Your task to perform on an android device: clear all cookies in the chrome app Image 0: 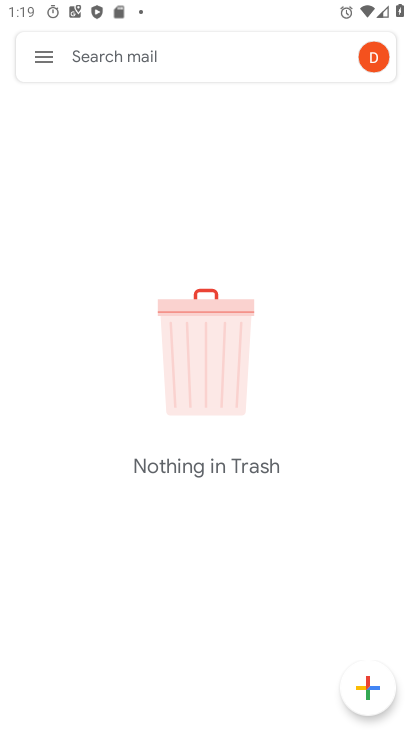
Step 0: press home button
Your task to perform on an android device: clear all cookies in the chrome app Image 1: 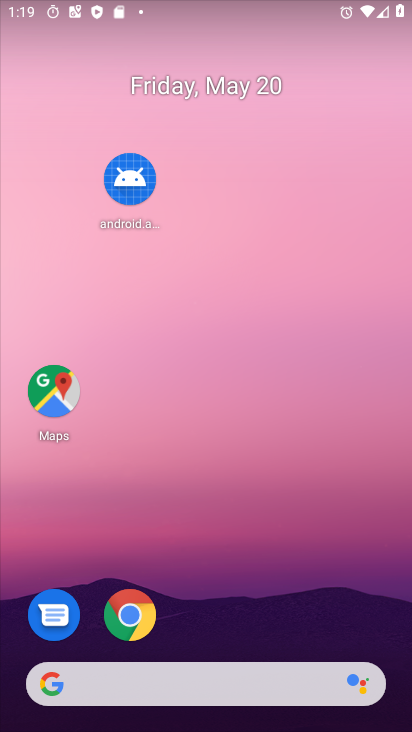
Step 1: click (126, 599)
Your task to perform on an android device: clear all cookies in the chrome app Image 2: 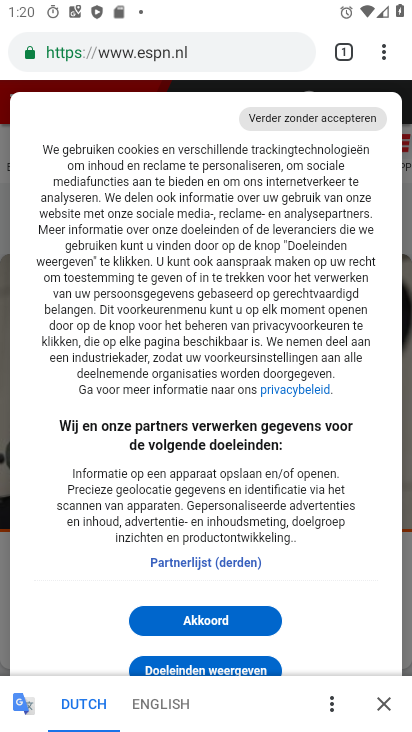
Step 2: click (389, 47)
Your task to perform on an android device: clear all cookies in the chrome app Image 3: 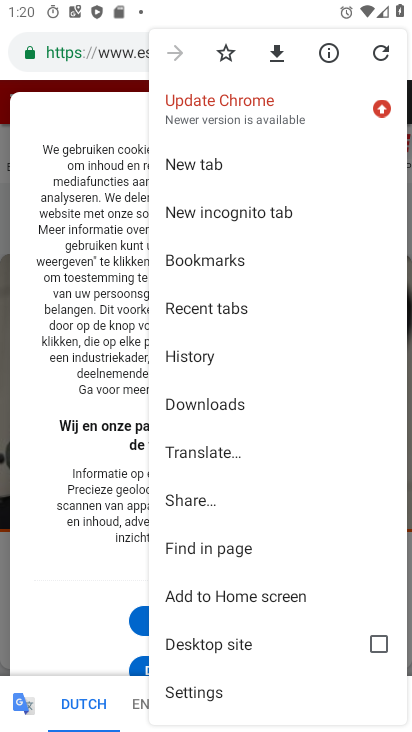
Step 3: click (227, 688)
Your task to perform on an android device: clear all cookies in the chrome app Image 4: 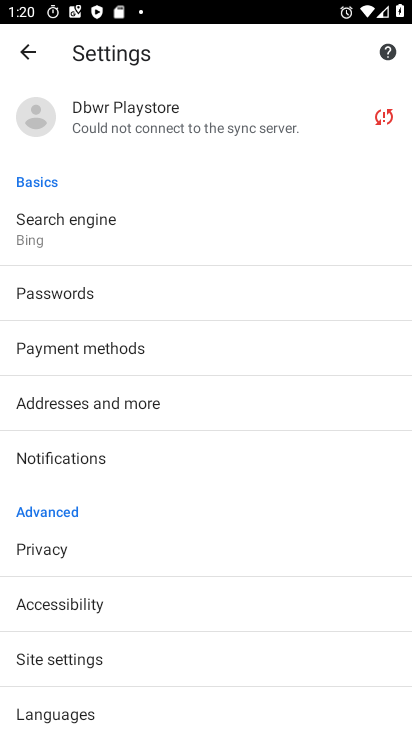
Step 4: click (56, 659)
Your task to perform on an android device: clear all cookies in the chrome app Image 5: 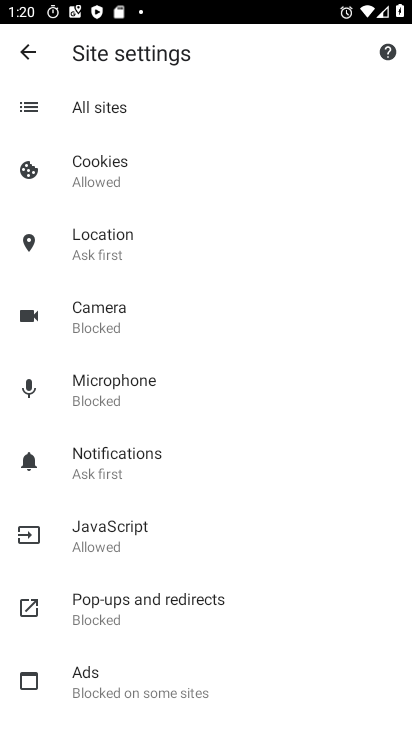
Step 5: click (37, 58)
Your task to perform on an android device: clear all cookies in the chrome app Image 6: 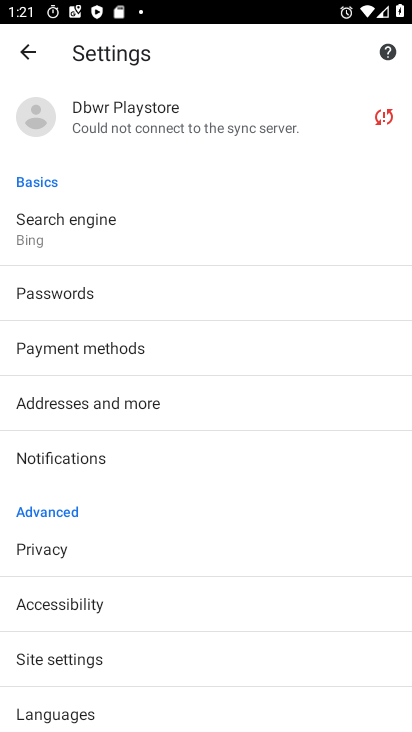
Step 6: click (66, 545)
Your task to perform on an android device: clear all cookies in the chrome app Image 7: 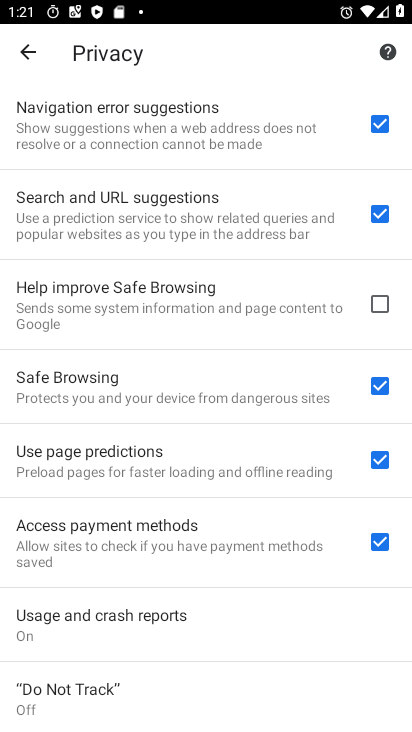
Step 7: drag from (145, 604) to (115, 194)
Your task to perform on an android device: clear all cookies in the chrome app Image 8: 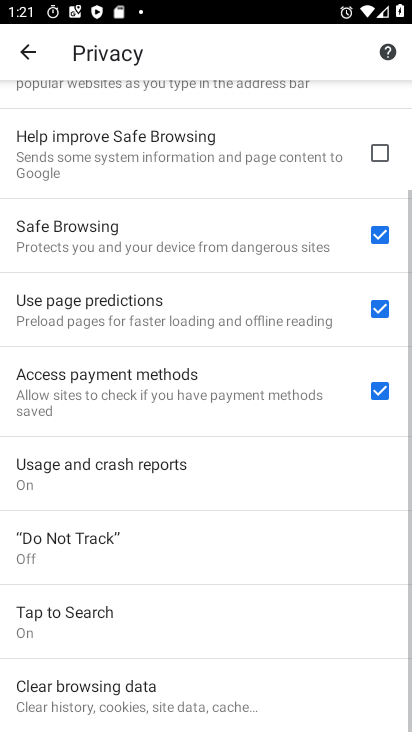
Step 8: click (212, 678)
Your task to perform on an android device: clear all cookies in the chrome app Image 9: 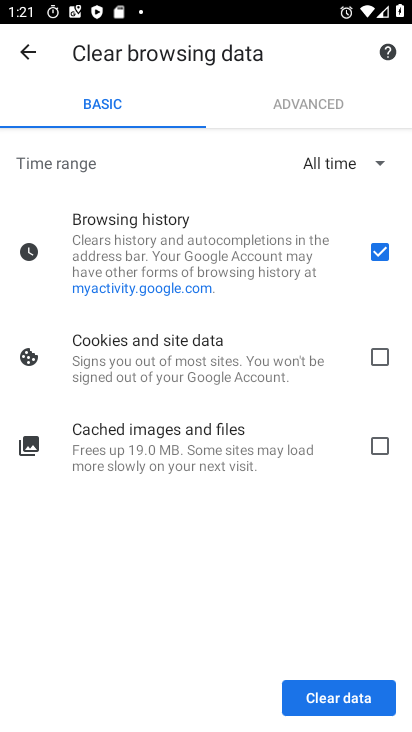
Step 9: click (375, 361)
Your task to perform on an android device: clear all cookies in the chrome app Image 10: 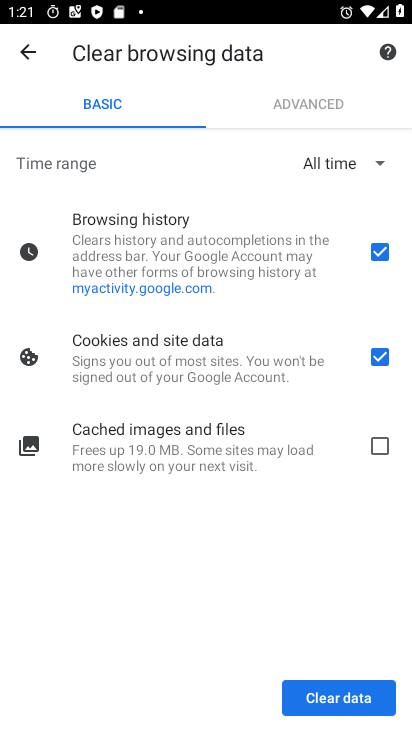
Step 10: click (380, 247)
Your task to perform on an android device: clear all cookies in the chrome app Image 11: 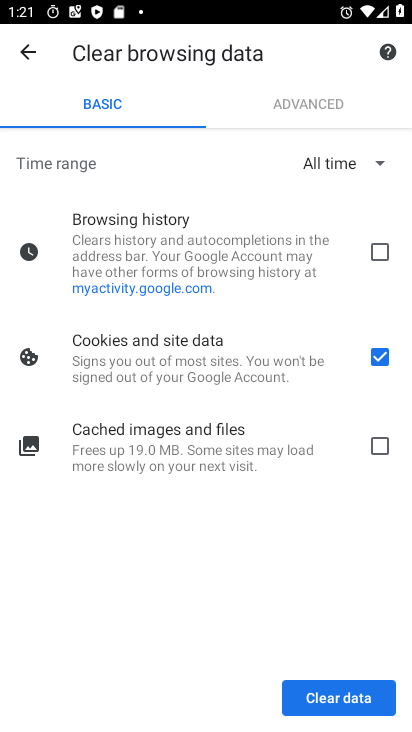
Step 11: click (344, 707)
Your task to perform on an android device: clear all cookies in the chrome app Image 12: 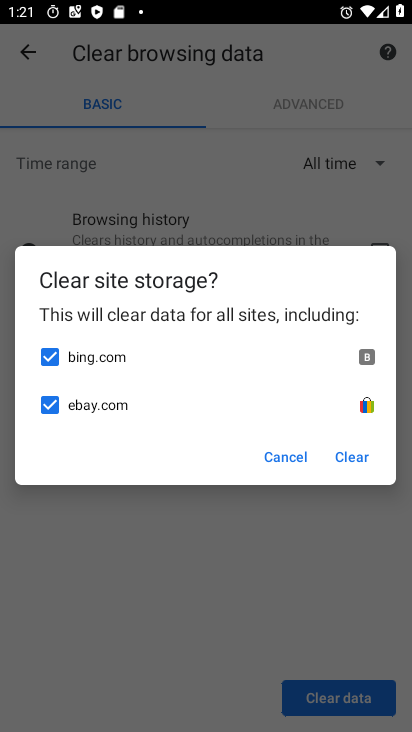
Step 12: click (357, 463)
Your task to perform on an android device: clear all cookies in the chrome app Image 13: 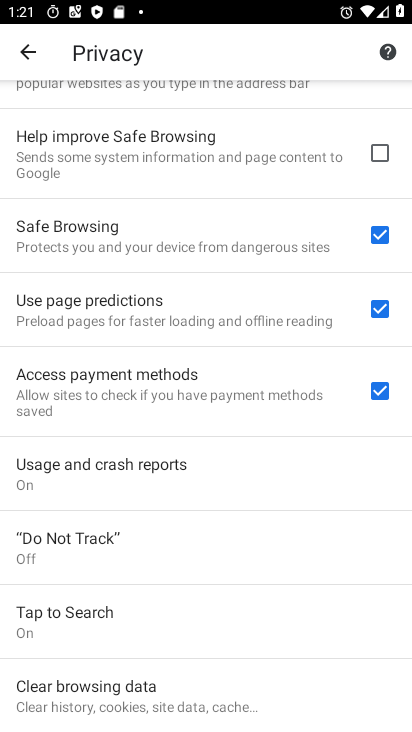
Step 13: task complete